Your task to perform on an android device: Open eBay Image 0: 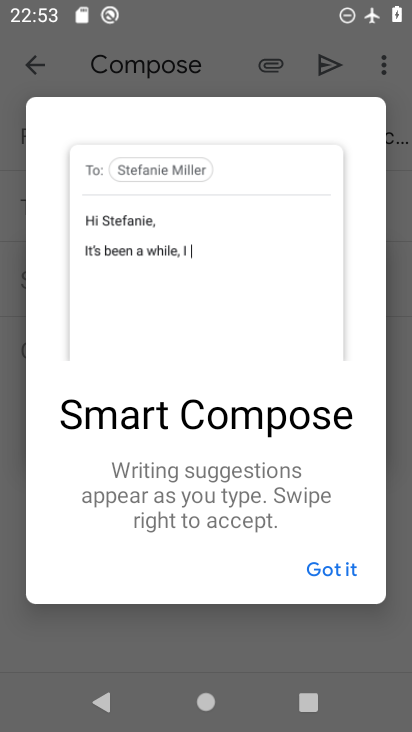
Step 0: press home button
Your task to perform on an android device: Open eBay Image 1: 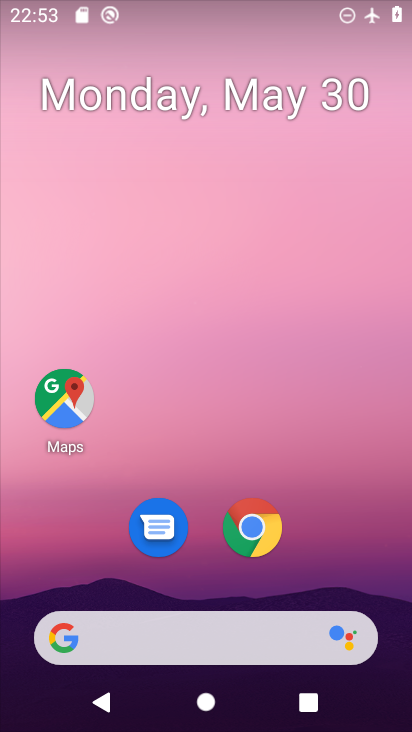
Step 1: click (258, 526)
Your task to perform on an android device: Open eBay Image 2: 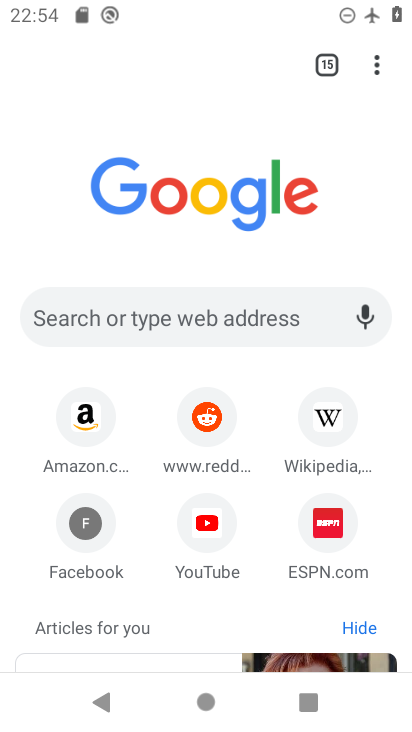
Step 2: click (209, 305)
Your task to perform on an android device: Open eBay Image 3: 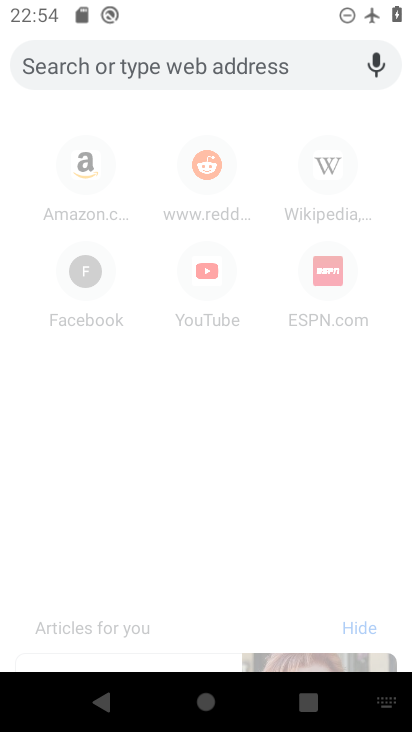
Step 3: type "eb ay"
Your task to perform on an android device: Open eBay Image 4: 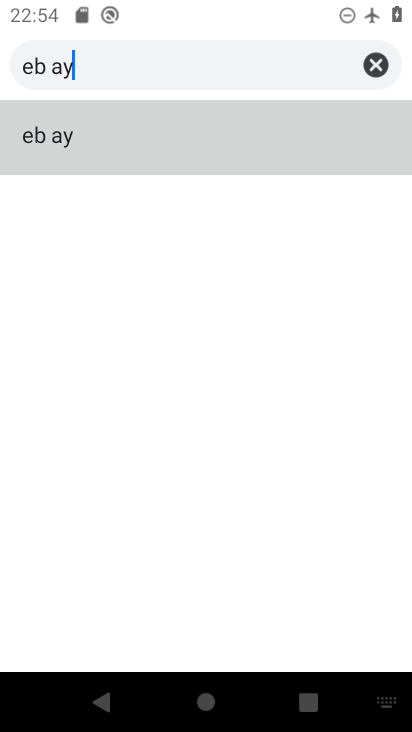
Step 4: click (301, 143)
Your task to perform on an android device: Open eBay Image 5: 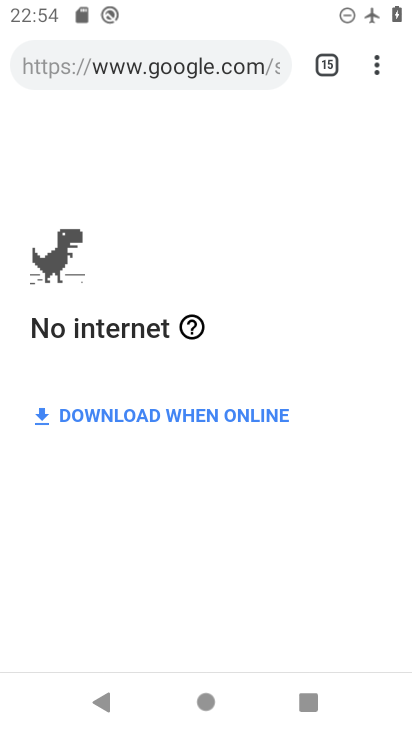
Step 5: task complete